Your task to perform on an android device: What is the news today? Image 0: 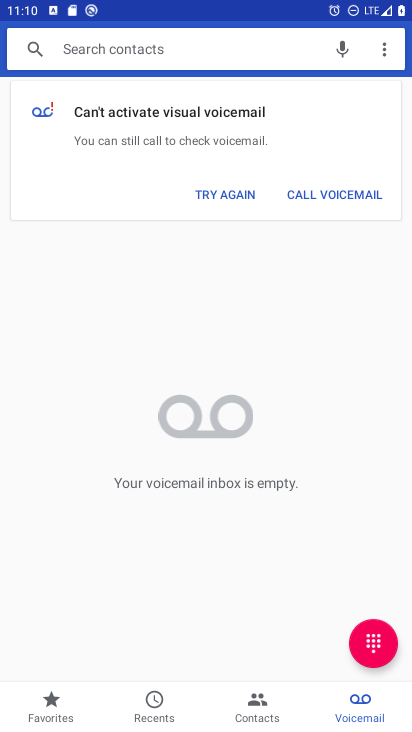
Step 0: press home button
Your task to perform on an android device: What is the news today? Image 1: 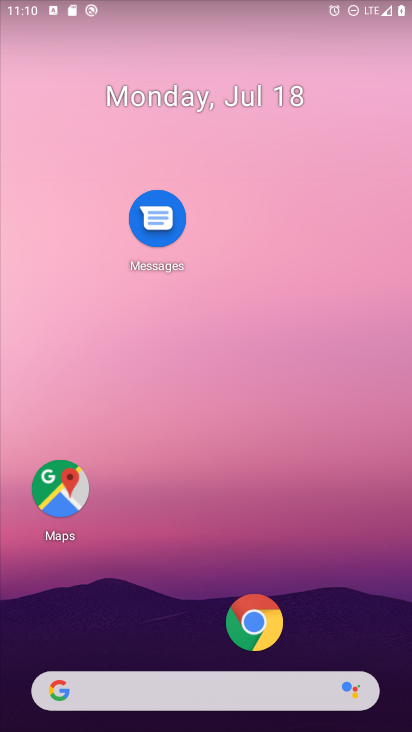
Step 1: drag from (186, 627) to (214, 186)
Your task to perform on an android device: What is the news today? Image 2: 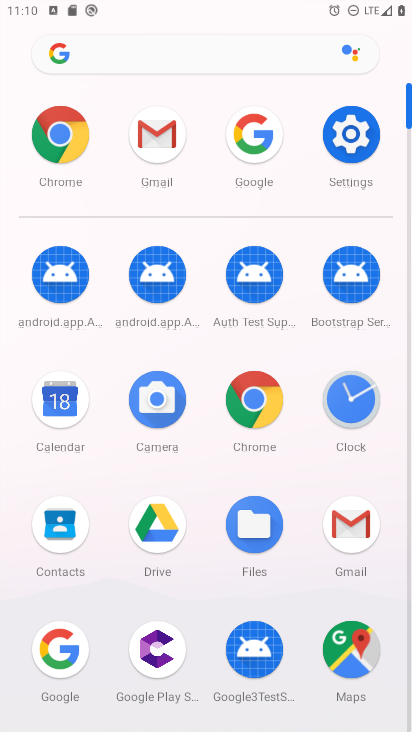
Step 2: click (57, 667)
Your task to perform on an android device: What is the news today? Image 3: 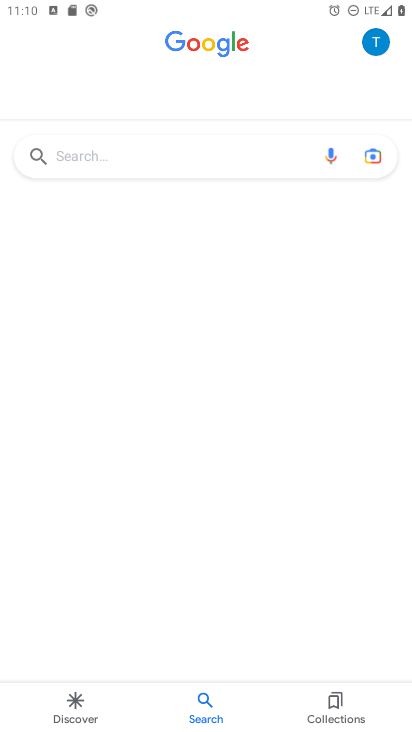
Step 3: click (196, 158)
Your task to perform on an android device: What is the news today? Image 4: 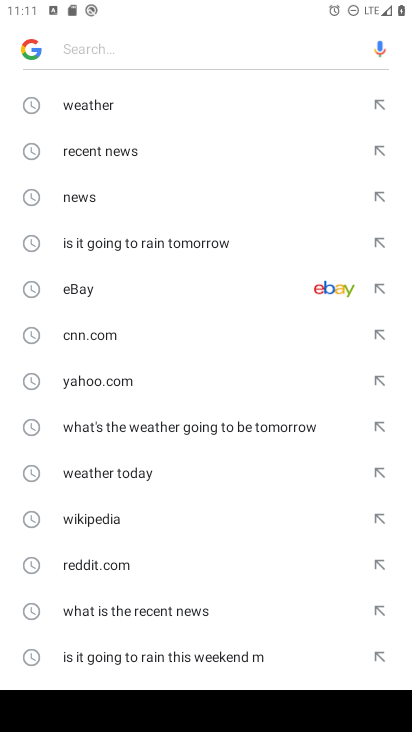
Step 4: click (123, 159)
Your task to perform on an android device: What is the news today? Image 5: 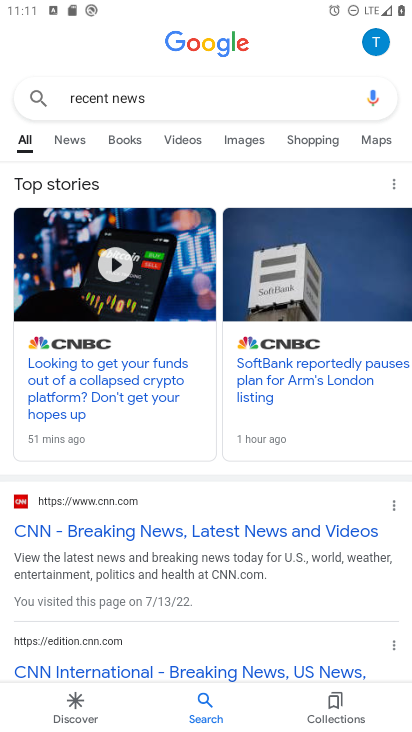
Step 5: task complete